Your task to perform on an android device: Turn on the flashlight Image 0: 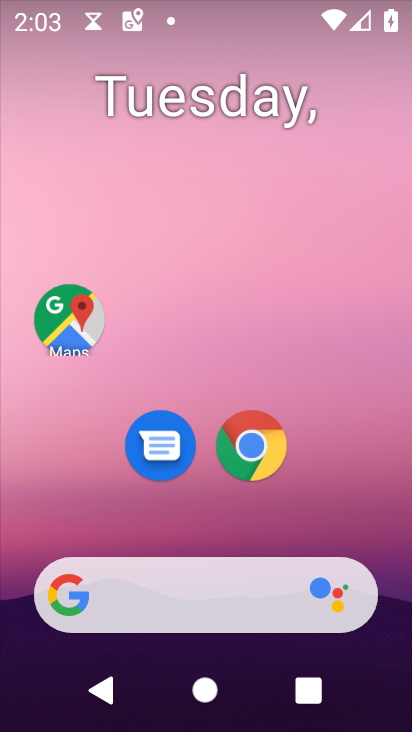
Step 0: drag from (359, 391) to (18, 142)
Your task to perform on an android device: Turn on the flashlight Image 1: 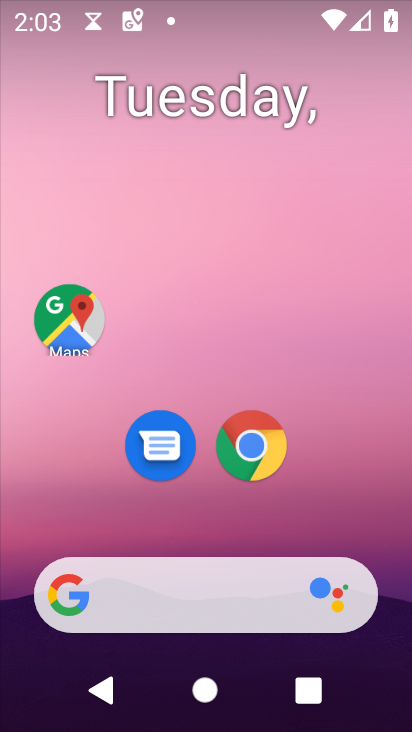
Step 1: drag from (357, 520) to (235, 35)
Your task to perform on an android device: Turn on the flashlight Image 2: 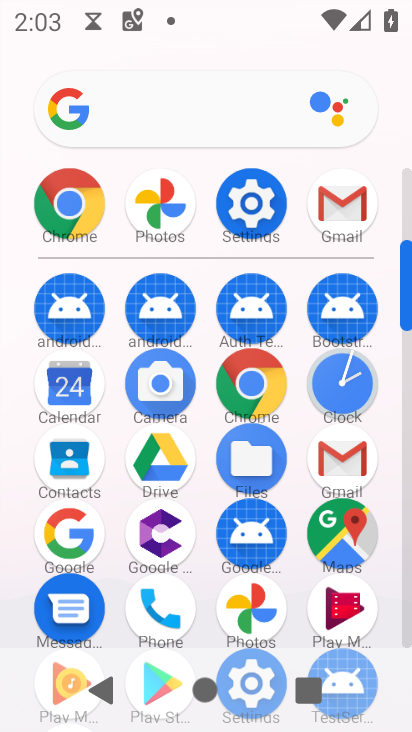
Step 2: click (270, 201)
Your task to perform on an android device: Turn on the flashlight Image 3: 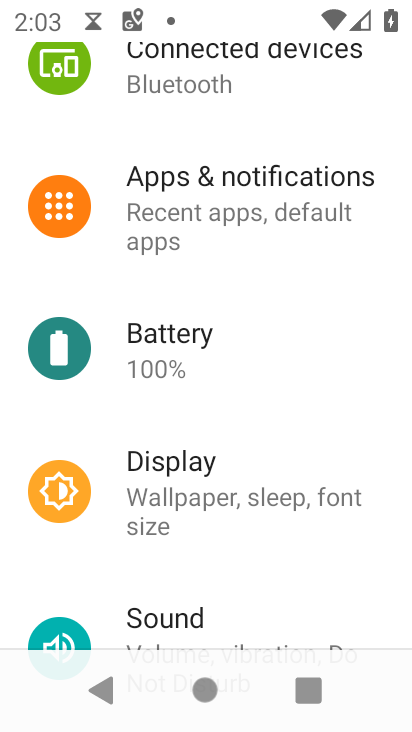
Step 3: task complete